Your task to perform on an android device: toggle wifi Image 0: 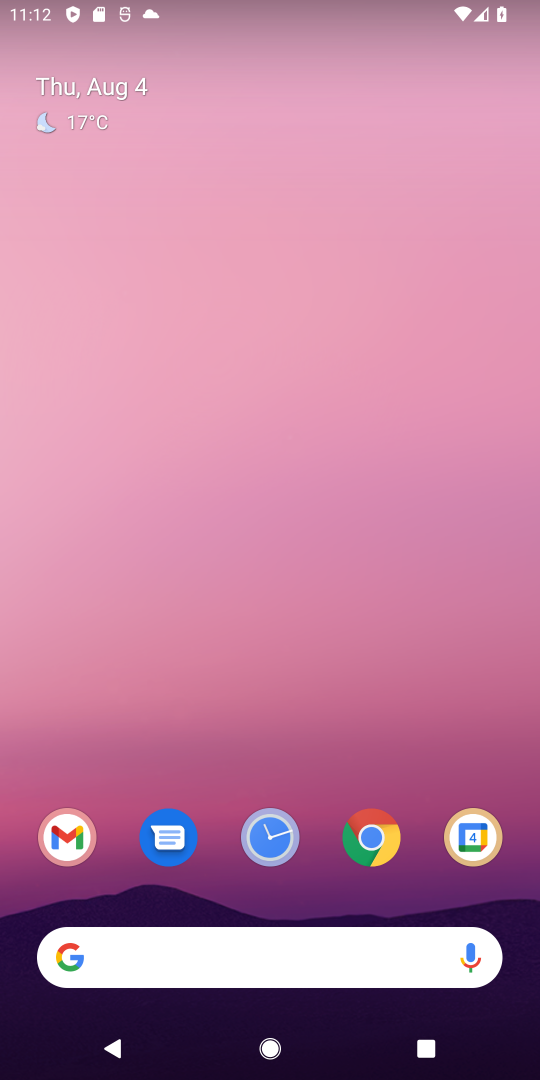
Step 0: drag from (189, 9) to (327, 889)
Your task to perform on an android device: toggle wifi Image 1: 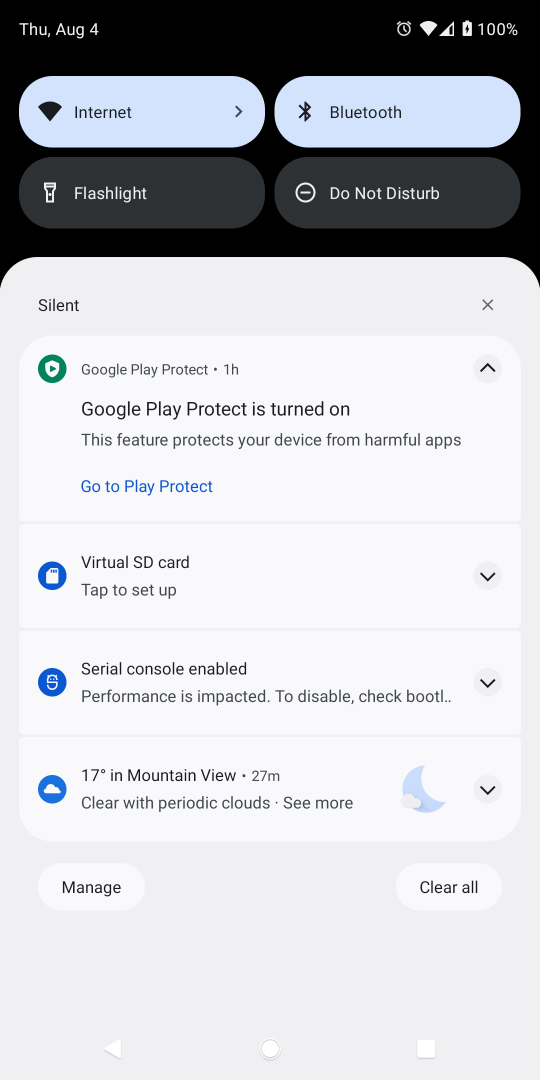
Step 1: click (146, 108)
Your task to perform on an android device: toggle wifi Image 2: 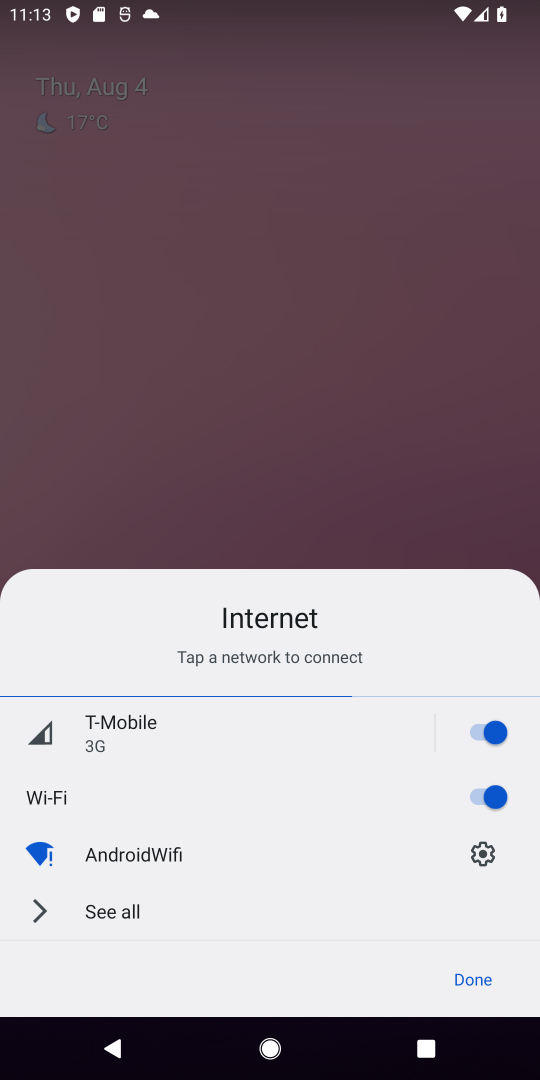
Step 2: click (474, 790)
Your task to perform on an android device: toggle wifi Image 3: 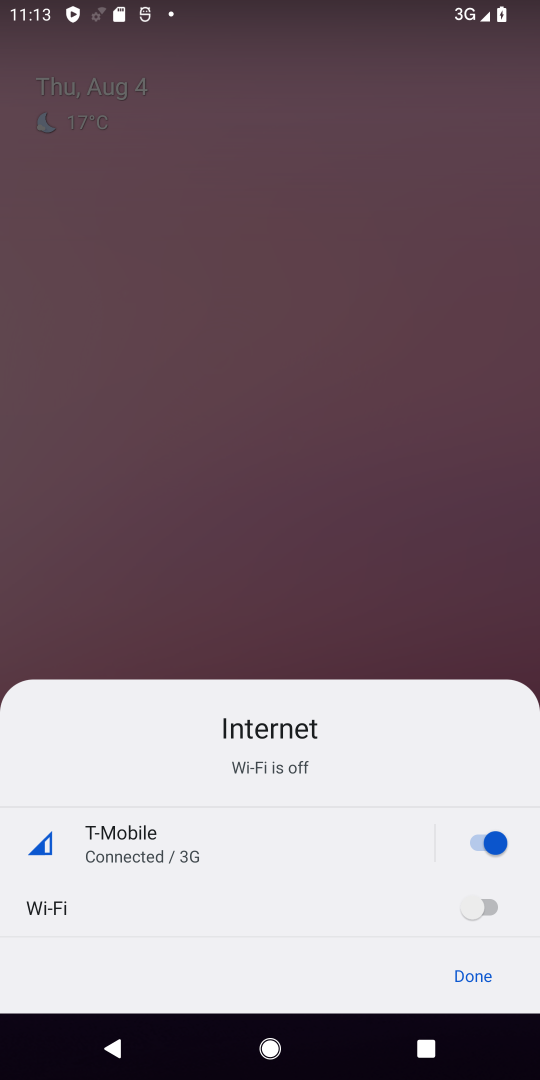
Step 3: task complete